Your task to perform on an android device: open the mobile data screen to see how much data has been used Image 0: 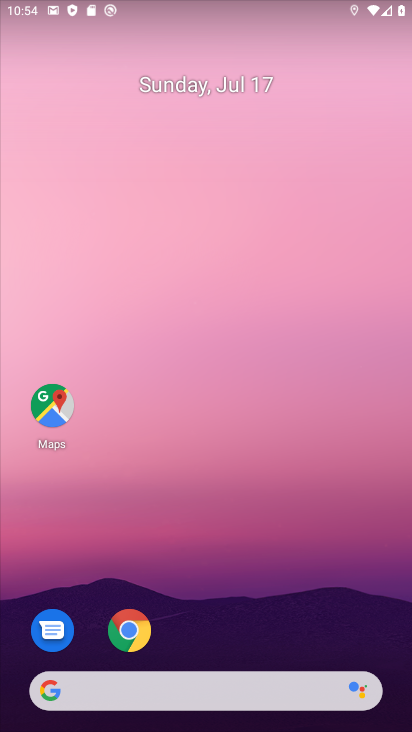
Step 0: drag from (217, 643) to (377, 43)
Your task to perform on an android device: open the mobile data screen to see how much data has been used Image 1: 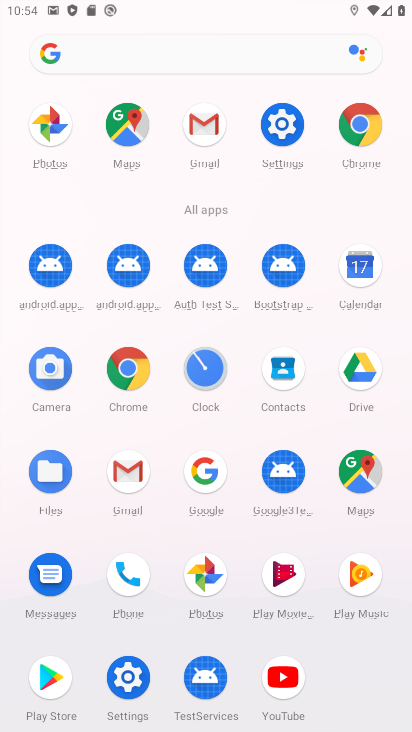
Step 1: drag from (190, 678) to (242, 384)
Your task to perform on an android device: open the mobile data screen to see how much data has been used Image 2: 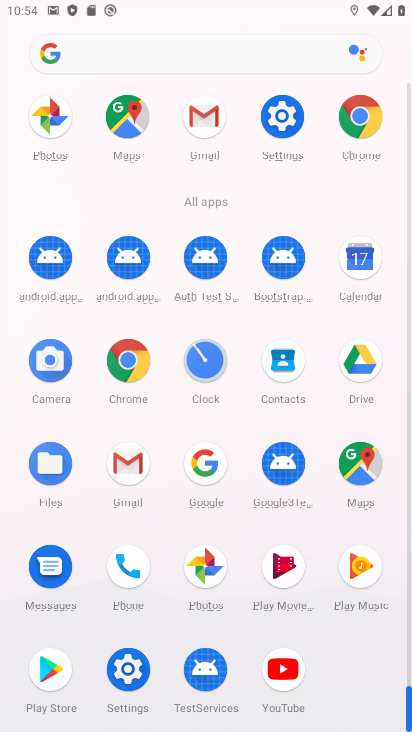
Step 2: click (124, 681)
Your task to perform on an android device: open the mobile data screen to see how much data has been used Image 3: 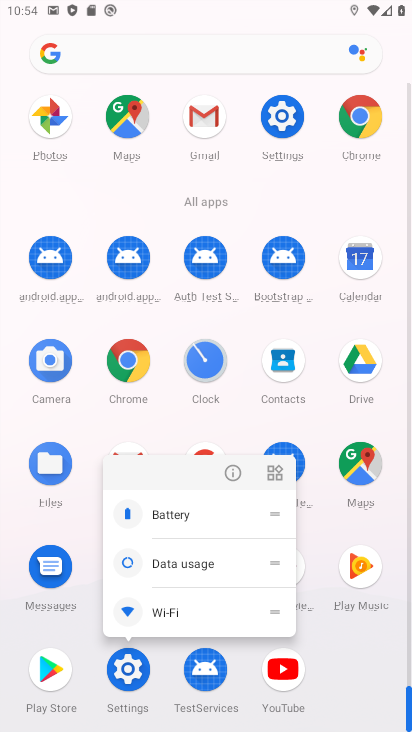
Step 3: click (132, 676)
Your task to perform on an android device: open the mobile data screen to see how much data has been used Image 4: 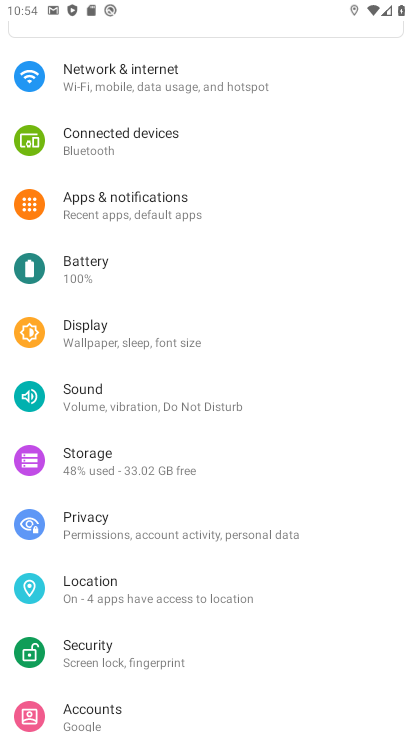
Step 4: click (170, 92)
Your task to perform on an android device: open the mobile data screen to see how much data has been used Image 5: 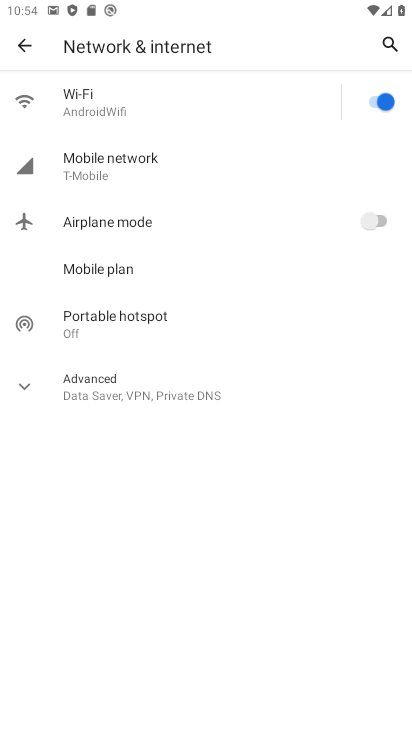
Step 5: click (188, 167)
Your task to perform on an android device: open the mobile data screen to see how much data has been used Image 6: 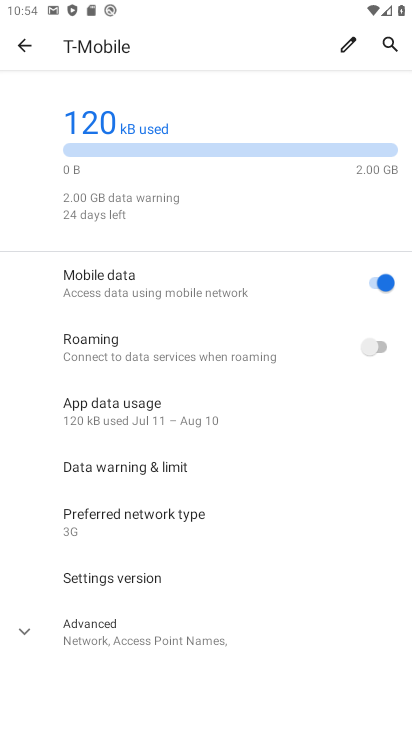
Step 6: task complete